Your task to perform on an android device: When is my next appointment? Image 0: 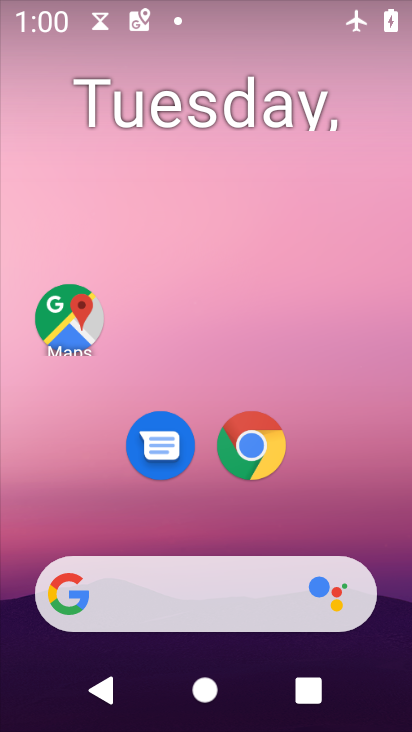
Step 0: drag from (375, 608) to (409, 299)
Your task to perform on an android device: When is my next appointment? Image 1: 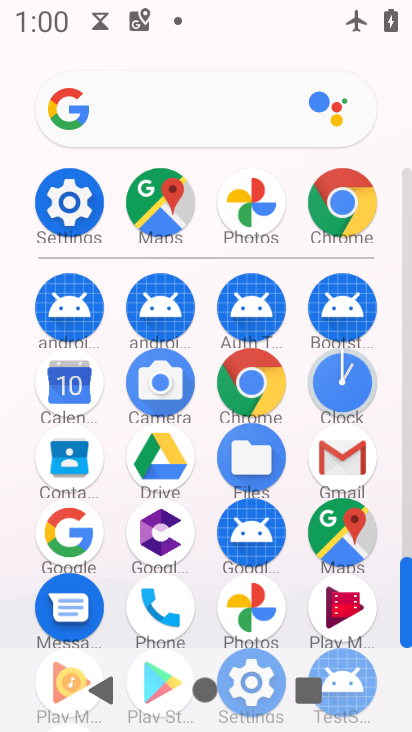
Step 1: click (248, 386)
Your task to perform on an android device: When is my next appointment? Image 2: 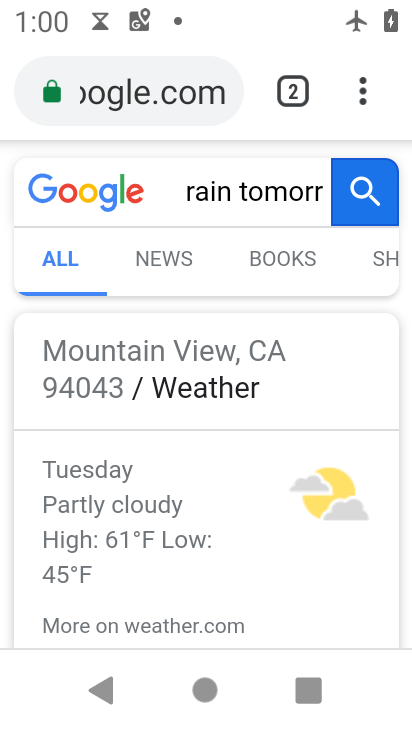
Step 2: click (294, 192)
Your task to perform on an android device: When is my next appointment? Image 3: 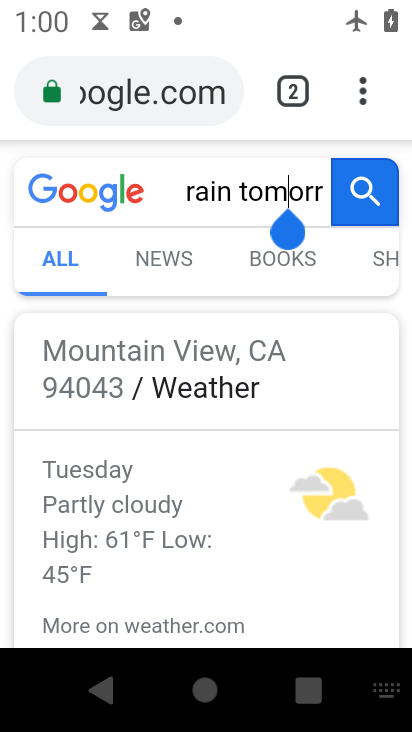
Step 3: click (295, 197)
Your task to perform on an android device: When is my next appointment? Image 4: 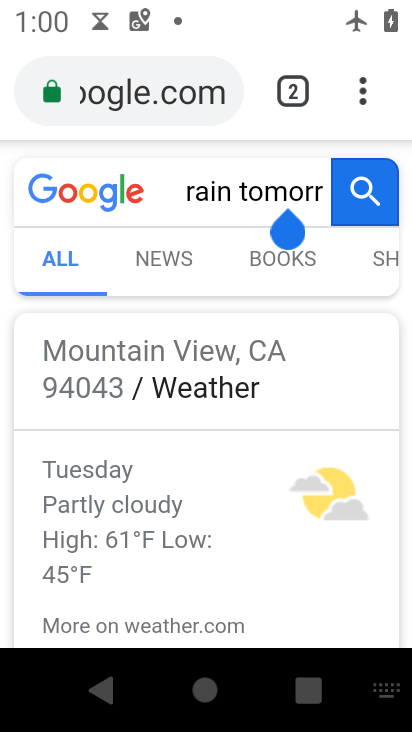
Step 4: click (295, 197)
Your task to perform on an android device: When is my next appointment? Image 5: 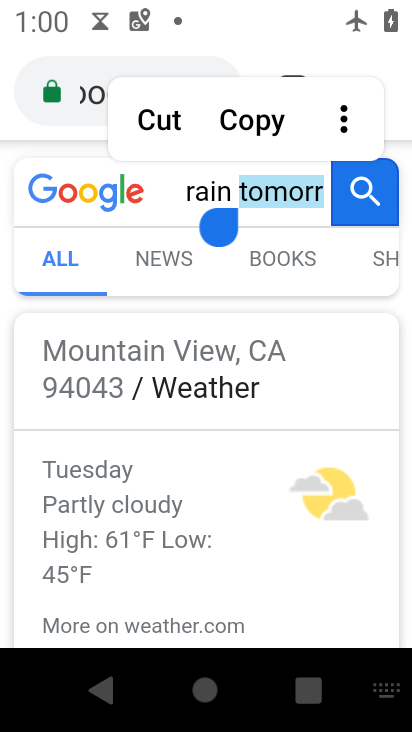
Step 5: click (269, 203)
Your task to perform on an android device: When is my next appointment? Image 6: 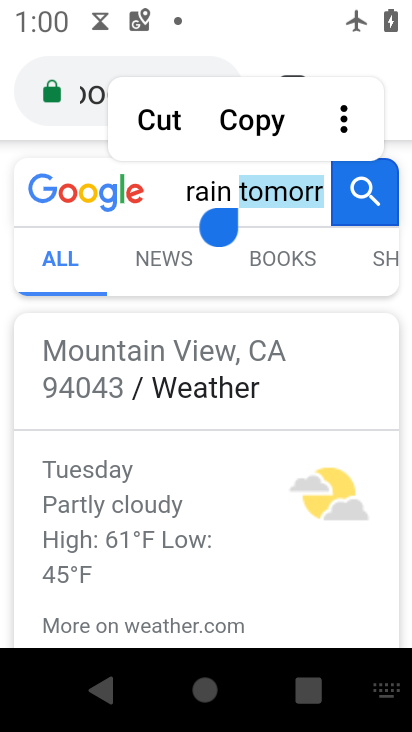
Step 6: click (269, 203)
Your task to perform on an android device: When is my next appointment? Image 7: 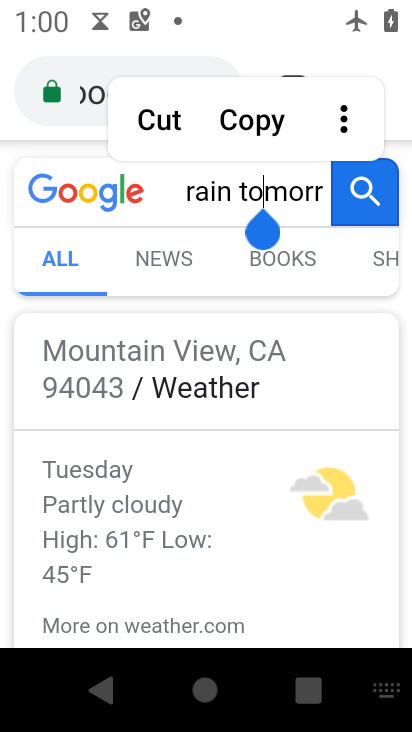
Step 7: click (269, 203)
Your task to perform on an android device: When is my next appointment? Image 8: 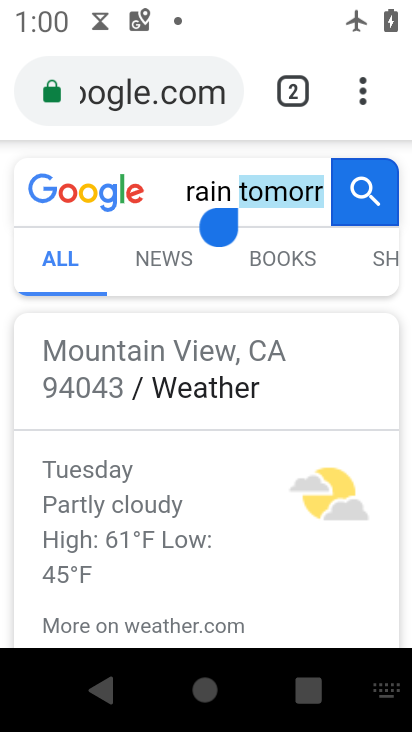
Step 8: click (182, 76)
Your task to perform on an android device: When is my next appointment? Image 9: 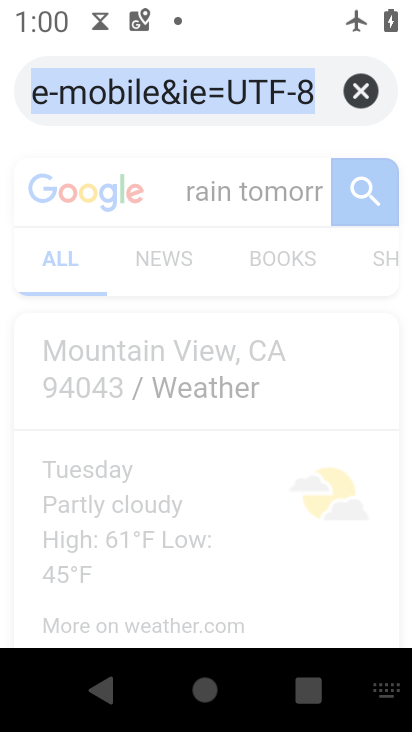
Step 9: press home button
Your task to perform on an android device: When is my next appointment? Image 10: 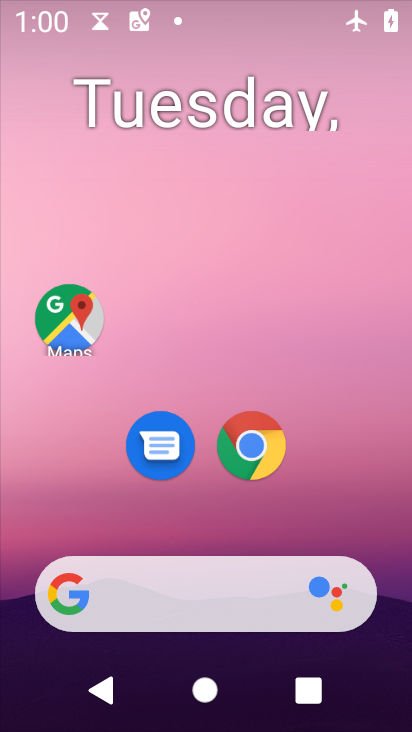
Step 10: drag from (204, 643) to (246, 149)
Your task to perform on an android device: When is my next appointment? Image 11: 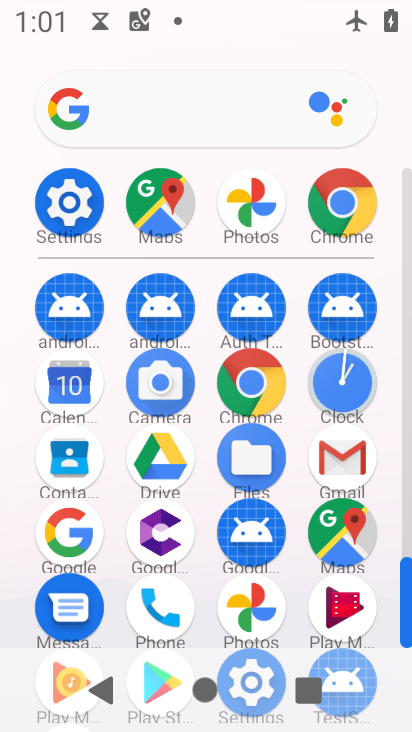
Step 11: click (89, 374)
Your task to perform on an android device: When is my next appointment? Image 12: 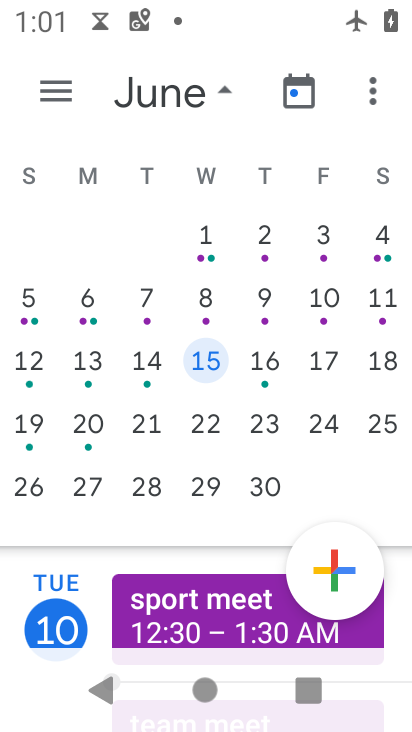
Step 12: task complete